Your task to perform on an android device: Go to Google Image 0: 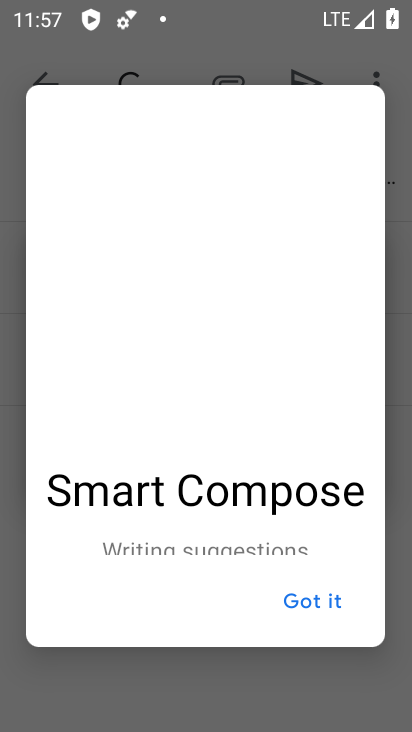
Step 0: press home button
Your task to perform on an android device: Go to Google Image 1: 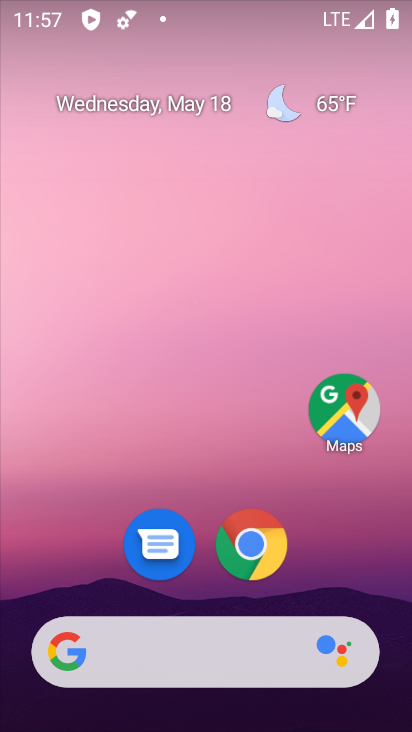
Step 1: drag from (369, 602) to (354, 304)
Your task to perform on an android device: Go to Google Image 2: 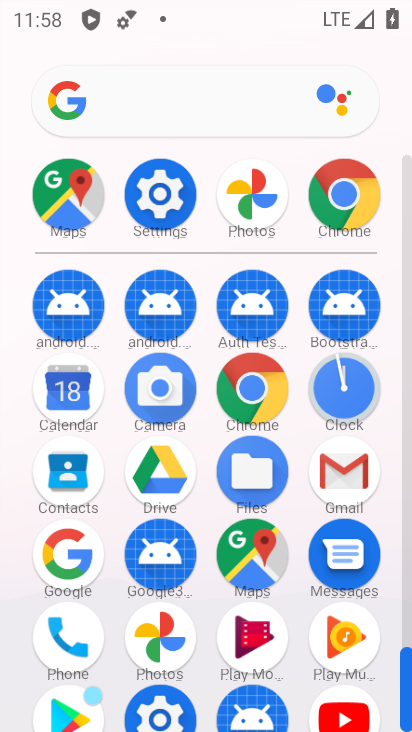
Step 2: click (55, 575)
Your task to perform on an android device: Go to Google Image 3: 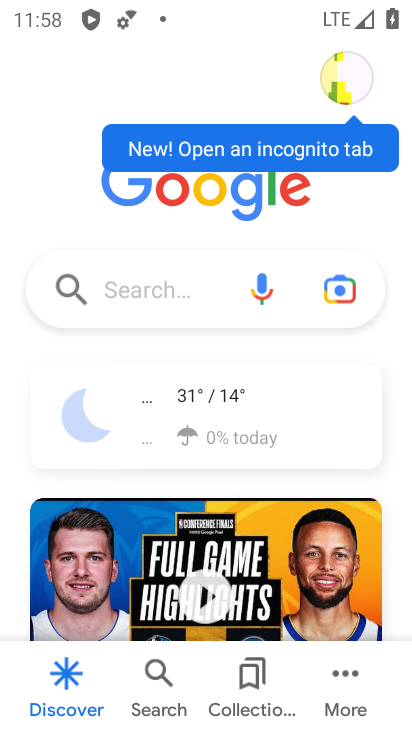
Step 3: task complete